Your task to perform on an android device: add a contact Image 0: 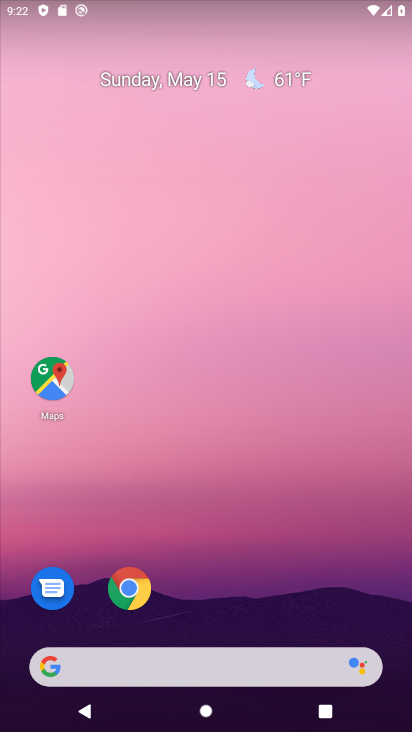
Step 0: click (295, 145)
Your task to perform on an android device: add a contact Image 1: 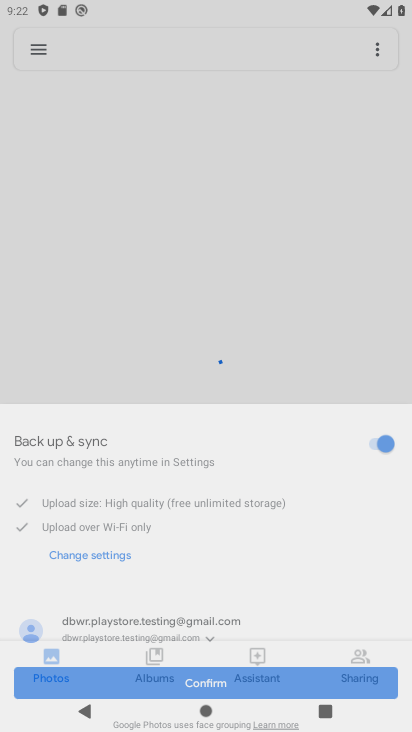
Step 1: press home button
Your task to perform on an android device: add a contact Image 2: 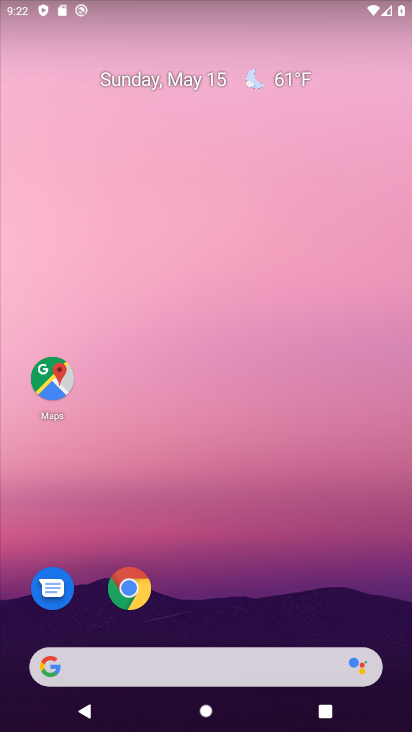
Step 2: drag from (199, 623) to (324, 88)
Your task to perform on an android device: add a contact Image 3: 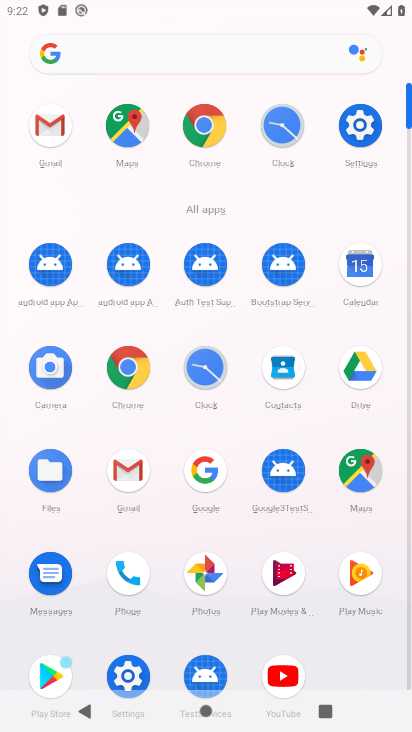
Step 3: click (290, 377)
Your task to perform on an android device: add a contact Image 4: 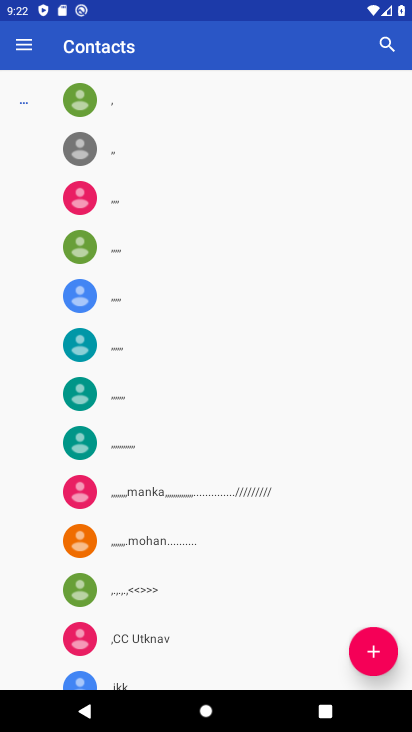
Step 4: click (387, 655)
Your task to perform on an android device: add a contact Image 5: 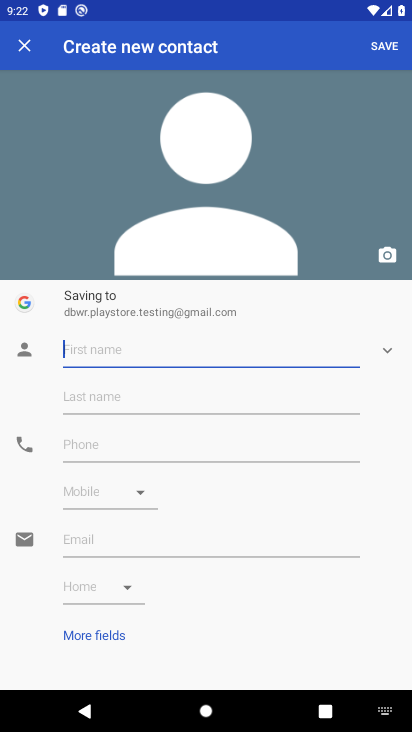
Step 5: type "castler"
Your task to perform on an android device: add a contact Image 6: 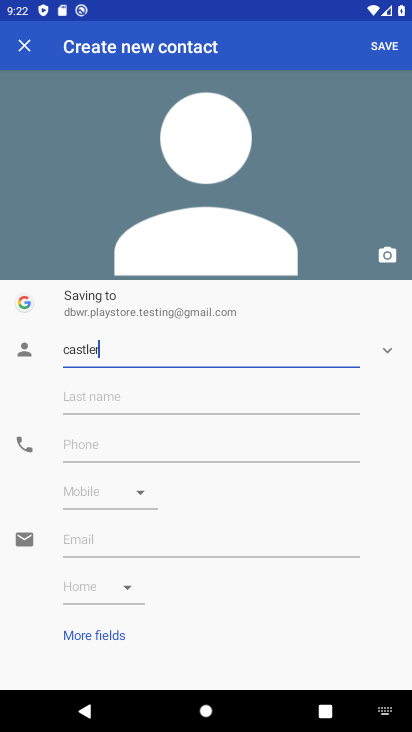
Step 6: click (378, 33)
Your task to perform on an android device: add a contact Image 7: 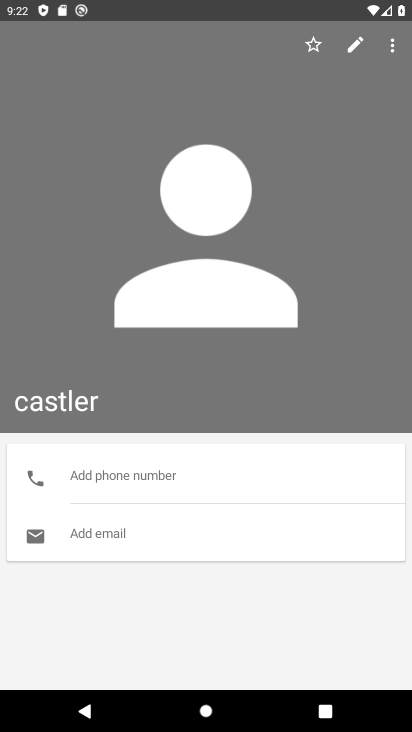
Step 7: task complete